Your task to perform on an android device: turn on sleep mode Image 0: 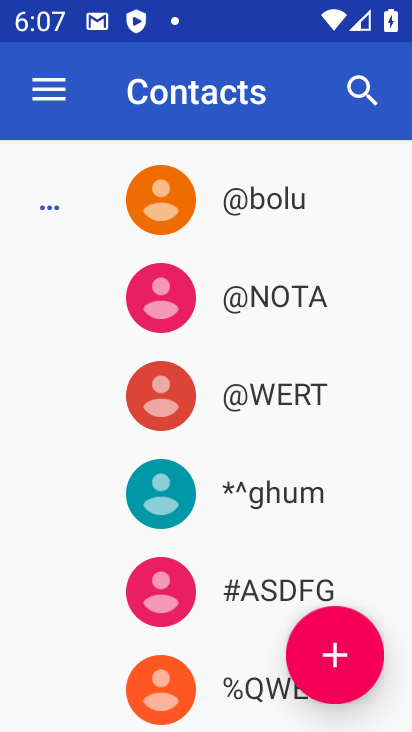
Step 0: click (322, 524)
Your task to perform on an android device: turn on sleep mode Image 1: 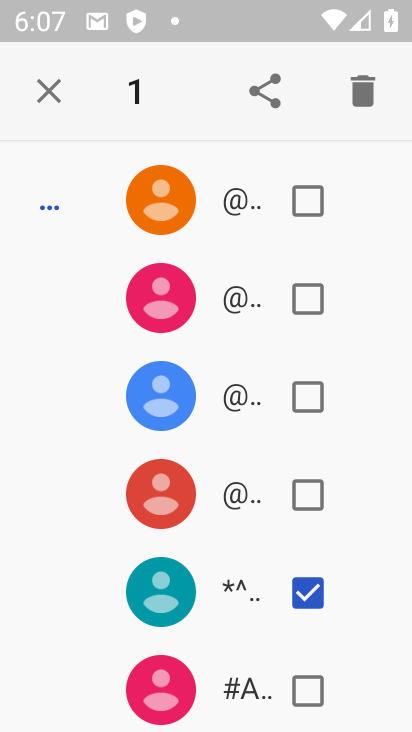
Step 1: press home button
Your task to perform on an android device: turn on sleep mode Image 2: 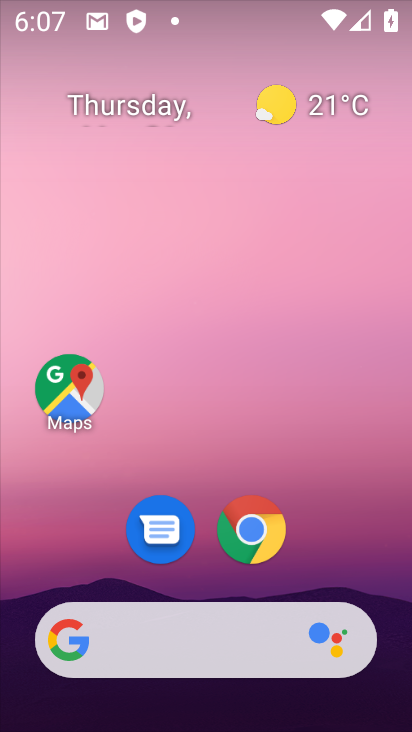
Step 2: drag from (318, 434) to (199, 31)
Your task to perform on an android device: turn on sleep mode Image 3: 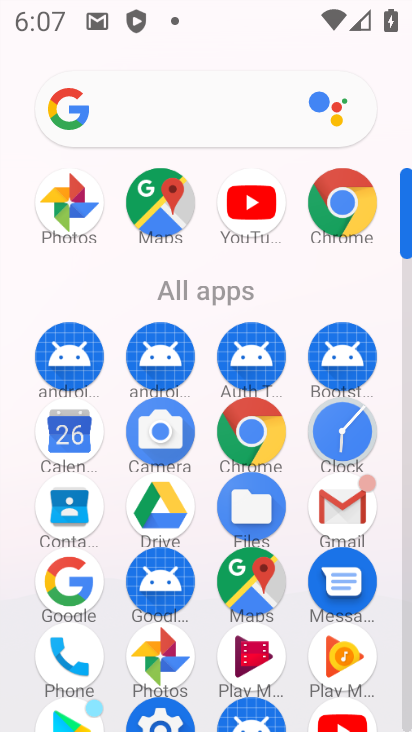
Step 3: drag from (212, 587) to (169, 262)
Your task to perform on an android device: turn on sleep mode Image 4: 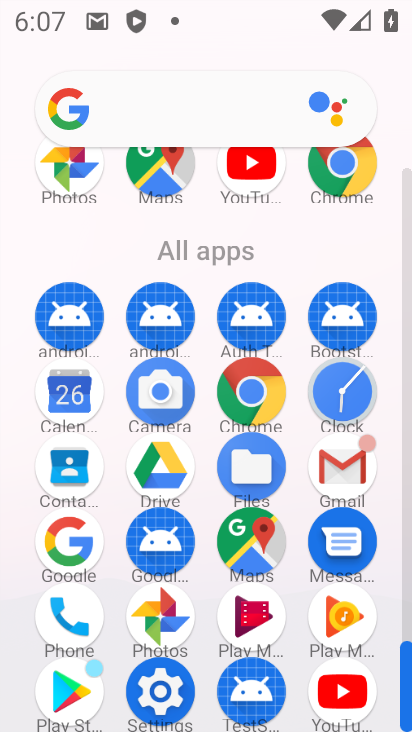
Step 4: click (153, 689)
Your task to perform on an android device: turn on sleep mode Image 5: 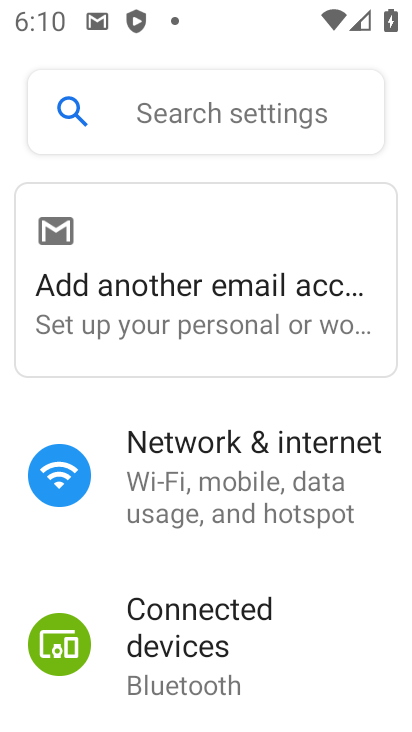
Step 5: drag from (257, 649) to (191, 301)
Your task to perform on an android device: turn on sleep mode Image 6: 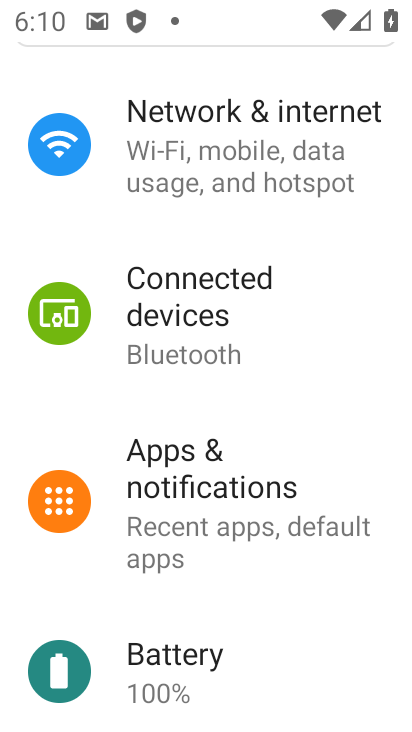
Step 6: drag from (168, 613) to (133, 312)
Your task to perform on an android device: turn on sleep mode Image 7: 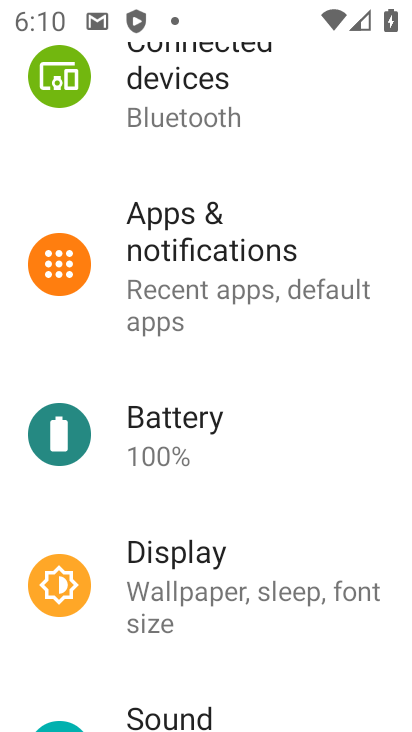
Step 7: click (184, 584)
Your task to perform on an android device: turn on sleep mode Image 8: 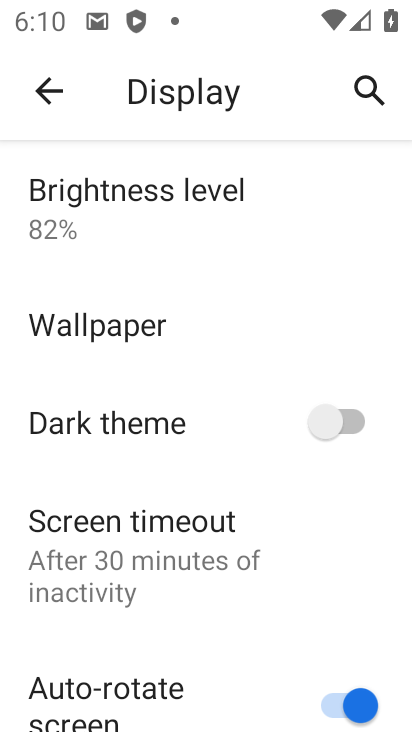
Step 8: task complete